Your task to perform on an android device: change notification settings in the gmail app Image 0: 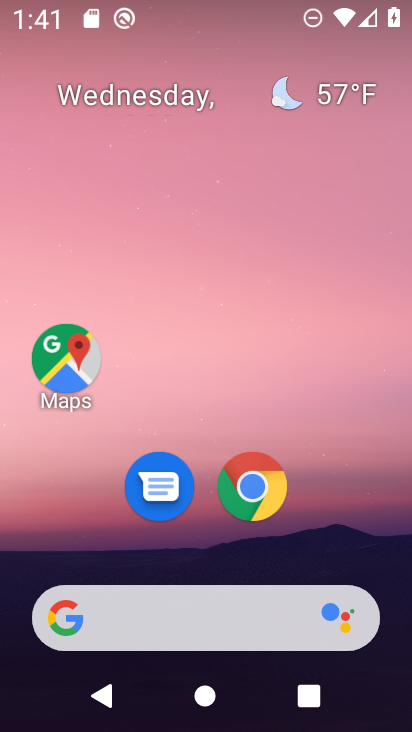
Step 0: drag from (367, 518) to (371, 163)
Your task to perform on an android device: change notification settings in the gmail app Image 1: 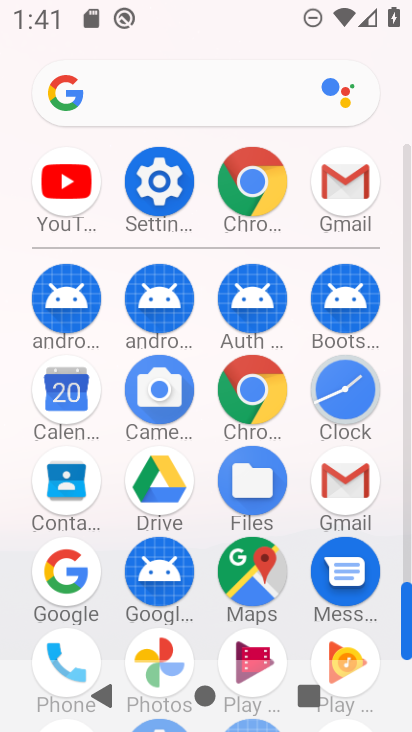
Step 1: click (356, 486)
Your task to perform on an android device: change notification settings in the gmail app Image 2: 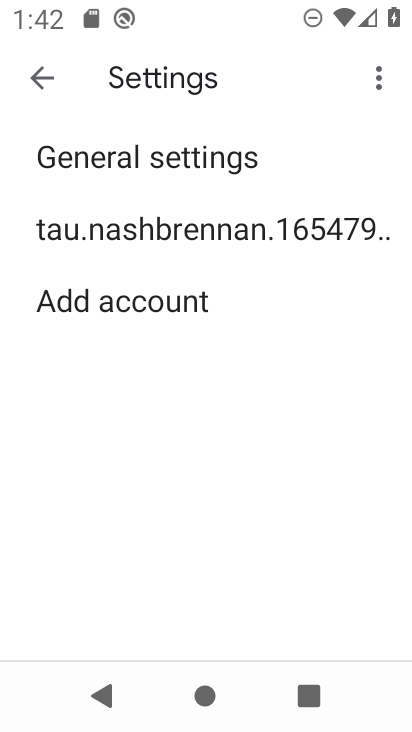
Step 2: click (236, 233)
Your task to perform on an android device: change notification settings in the gmail app Image 3: 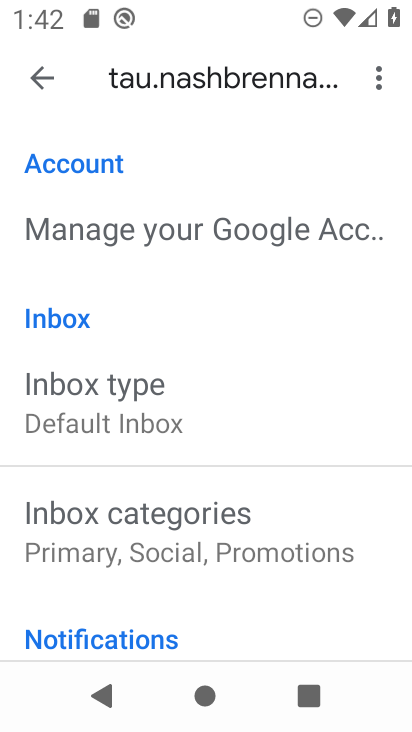
Step 3: drag from (331, 419) to (344, 339)
Your task to perform on an android device: change notification settings in the gmail app Image 4: 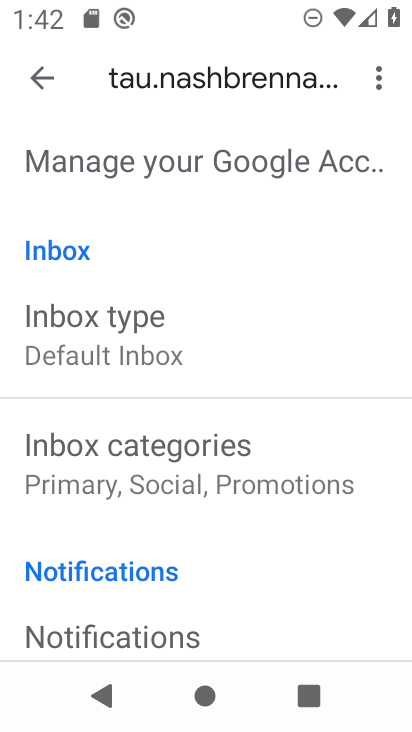
Step 4: drag from (373, 554) to (380, 452)
Your task to perform on an android device: change notification settings in the gmail app Image 5: 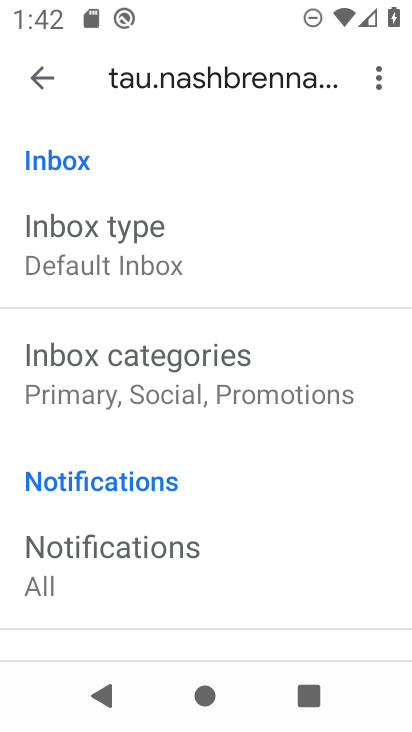
Step 5: drag from (351, 560) to (348, 462)
Your task to perform on an android device: change notification settings in the gmail app Image 6: 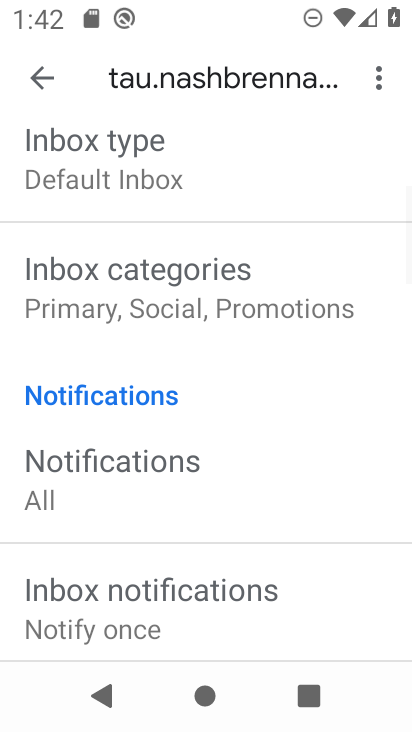
Step 6: drag from (338, 561) to (340, 475)
Your task to perform on an android device: change notification settings in the gmail app Image 7: 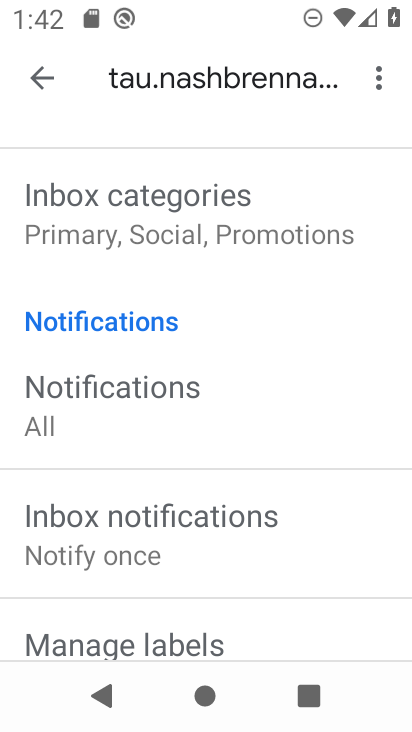
Step 7: drag from (338, 543) to (342, 503)
Your task to perform on an android device: change notification settings in the gmail app Image 8: 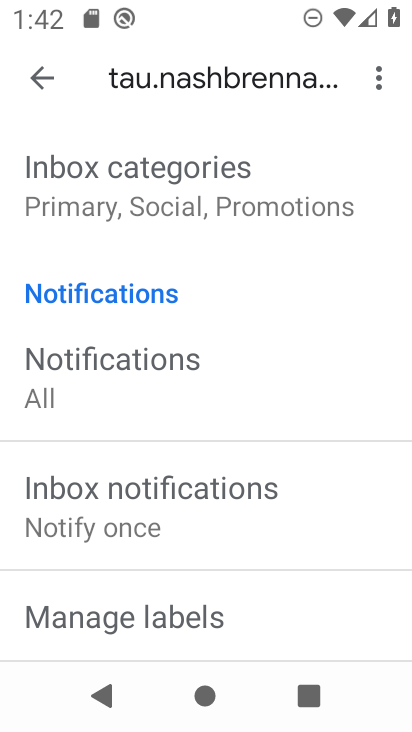
Step 8: drag from (346, 349) to (347, 450)
Your task to perform on an android device: change notification settings in the gmail app Image 9: 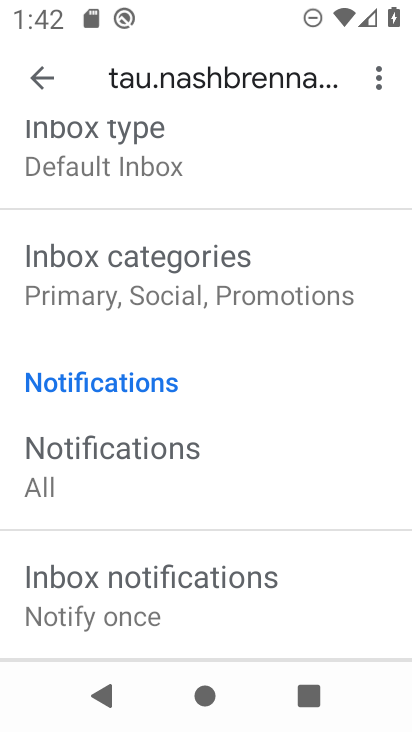
Step 9: click (264, 467)
Your task to perform on an android device: change notification settings in the gmail app Image 10: 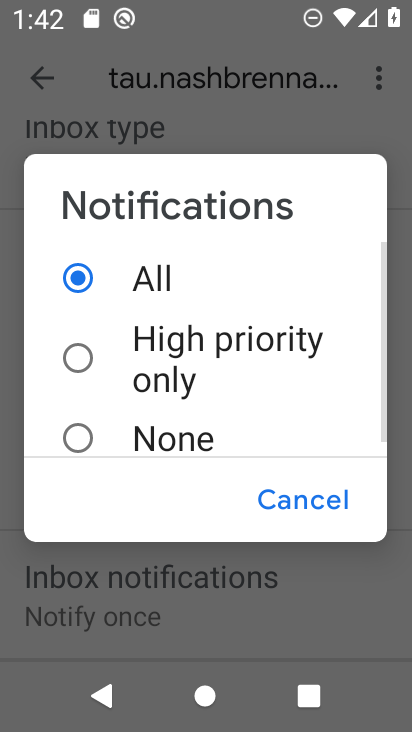
Step 10: click (177, 367)
Your task to perform on an android device: change notification settings in the gmail app Image 11: 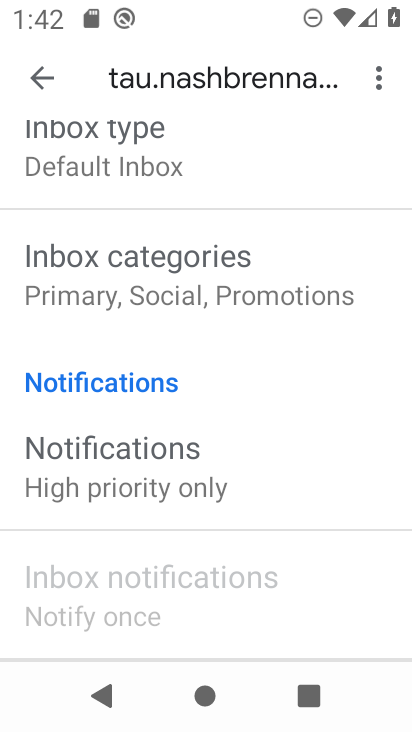
Step 11: task complete